Your task to perform on an android device: toggle wifi Image 0: 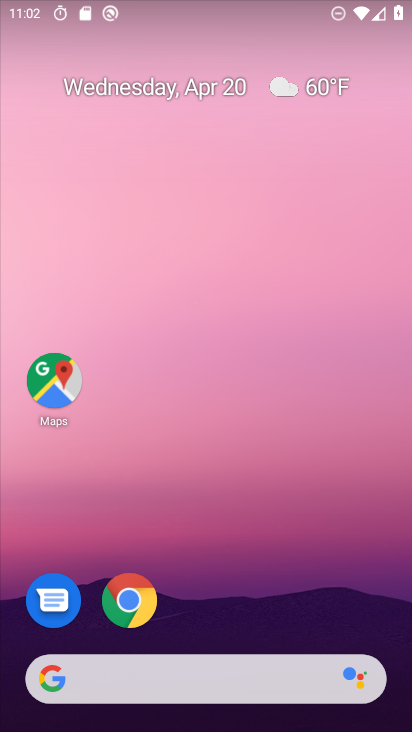
Step 0: drag from (201, 13) to (302, 677)
Your task to perform on an android device: toggle wifi Image 1: 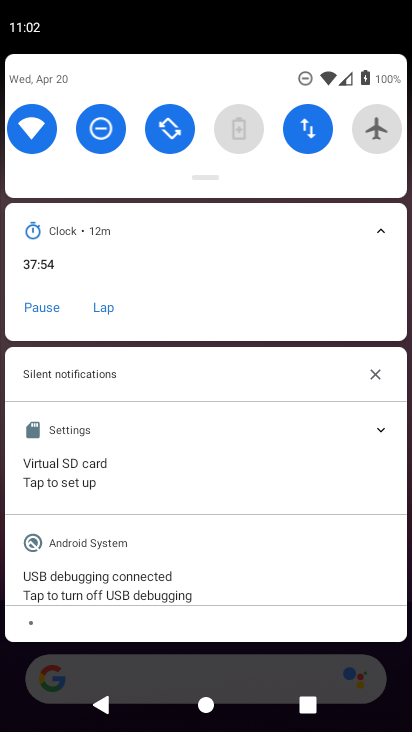
Step 1: click (41, 121)
Your task to perform on an android device: toggle wifi Image 2: 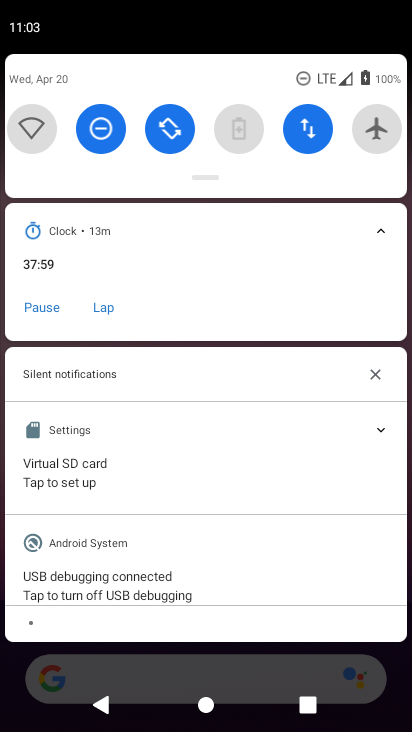
Step 2: click (41, 121)
Your task to perform on an android device: toggle wifi Image 3: 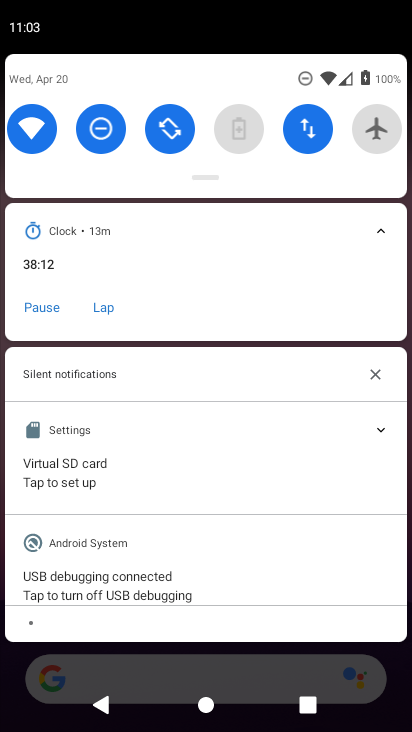
Step 3: task complete